Your task to perform on an android device: Go to Maps Image 0: 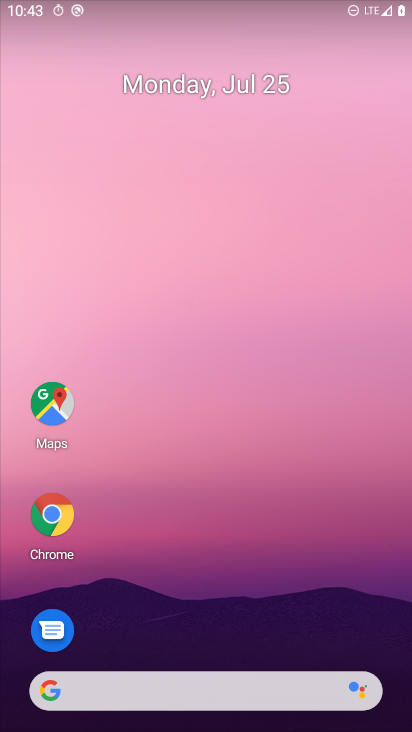
Step 0: click (45, 399)
Your task to perform on an android device: Go to Maps Image 1: 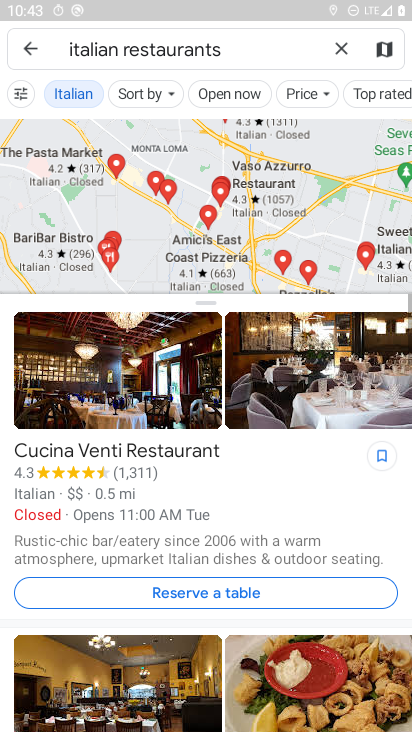
Step 1: click (27, 56)
Your task to perform on an android device: Go to Maps Image 2: 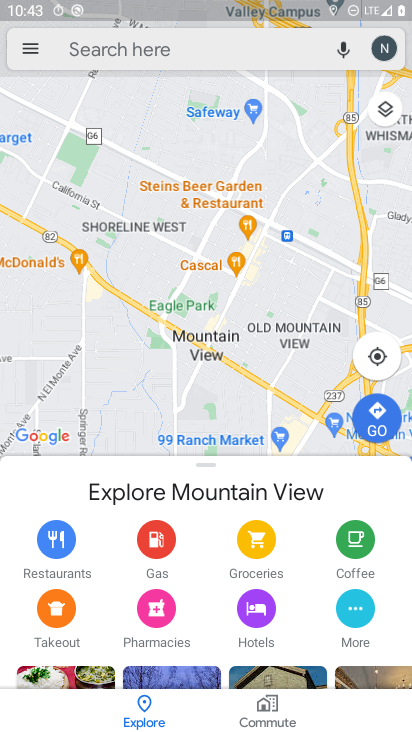
Step 2: task complete